Your task to perform on an android device: Show me recent news Image 0: 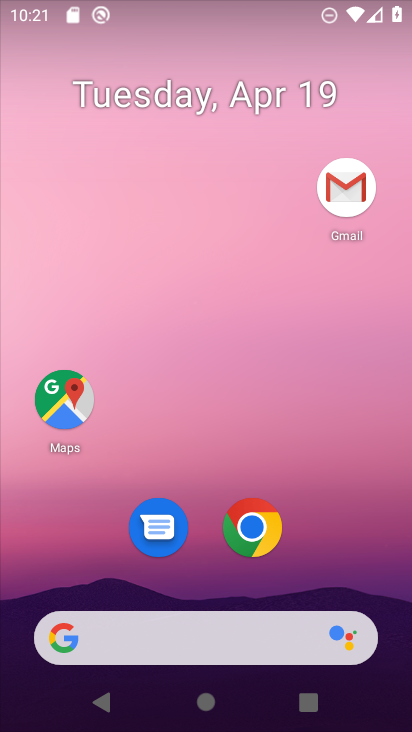
Step 0: drag from (379, 529) to (389, 122)
Your task to perform on an android device: Show me recent news Image 1: 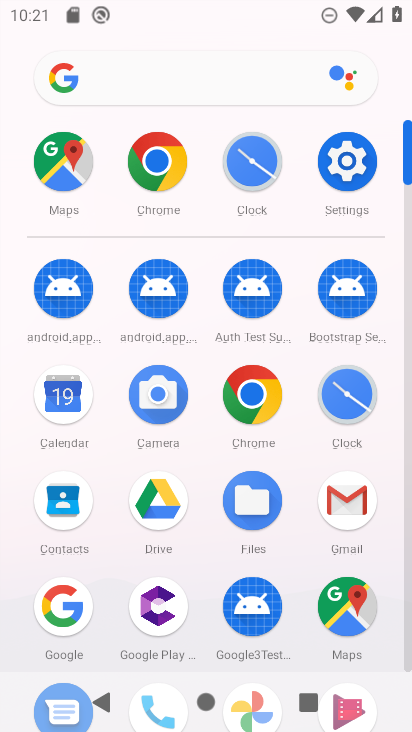
Step 1: click (246, 394)
Your task to perform on an android device: Show me recent news Image 2: 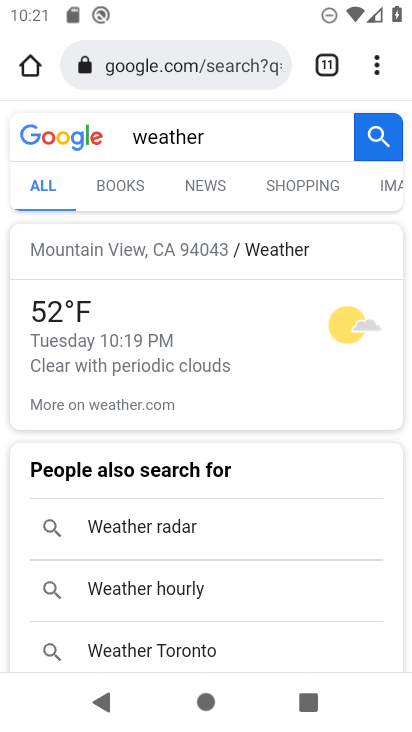
Step 2: click (202, 71)
Your task to perform on an android device: Show me recent news Image 3: 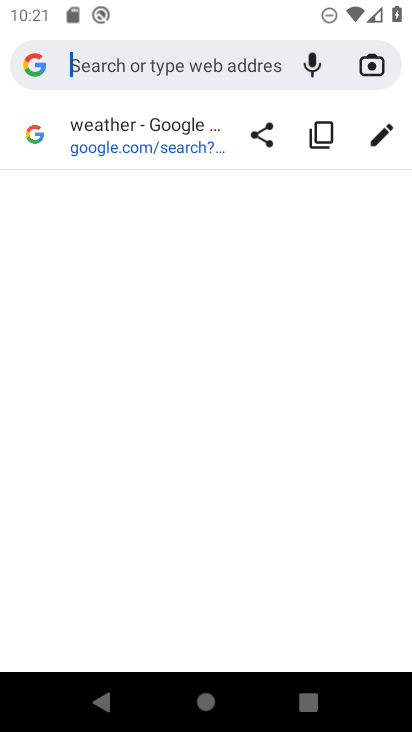
Step 3: type "recent news"
Your task to perform on an android device: Show me recent news Image 4: 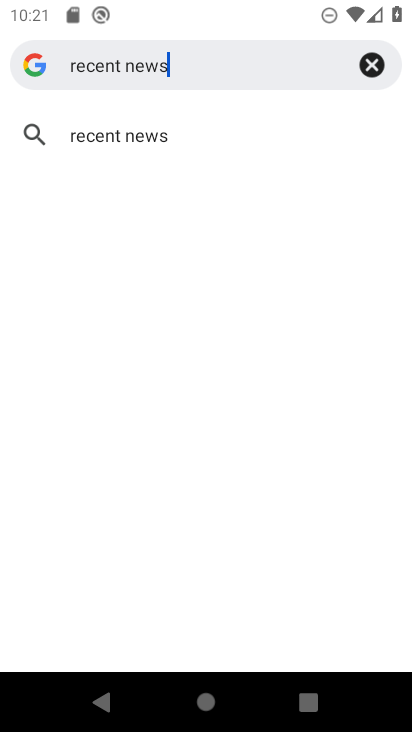
Step 4: click (80, 138)
Your task to perform on an android device: Show me recent news Image 5: 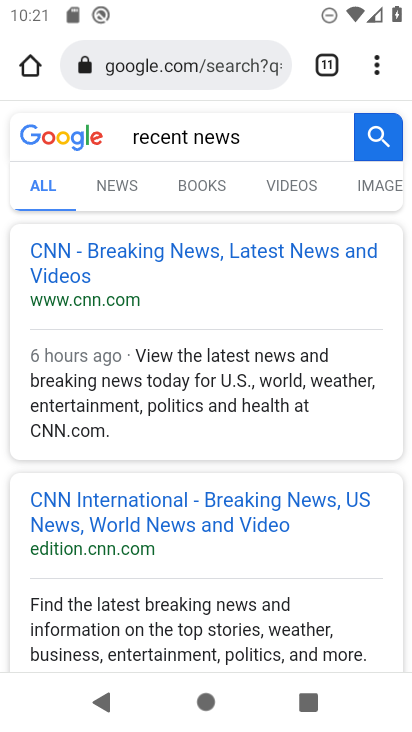
Step 5: click (121, 245)
Your task to perform on an android device: Show me recent news Image 6: 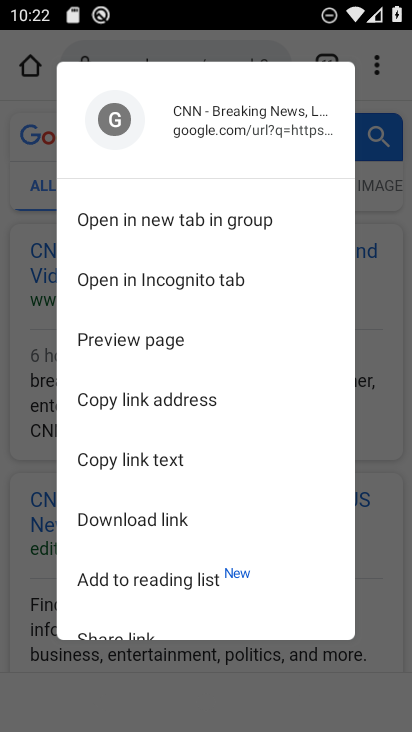
Step 6: click (229, 671)
Your task to perform on an android device: Show me recent news Image 7: 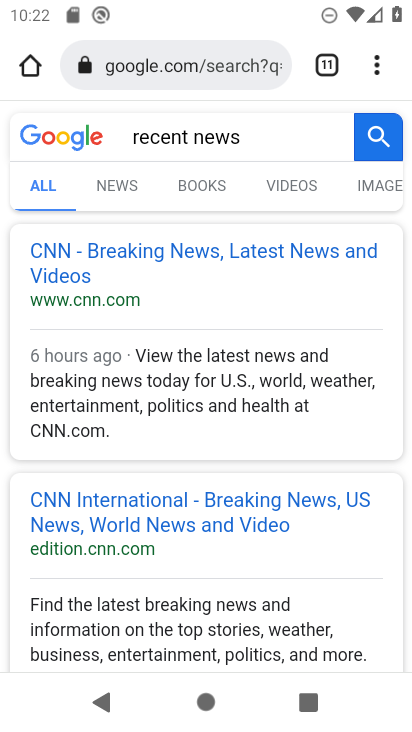
Step 7: task complete